Your task to perform on an android device: turn off notifications settings in the gmail app Image 0: 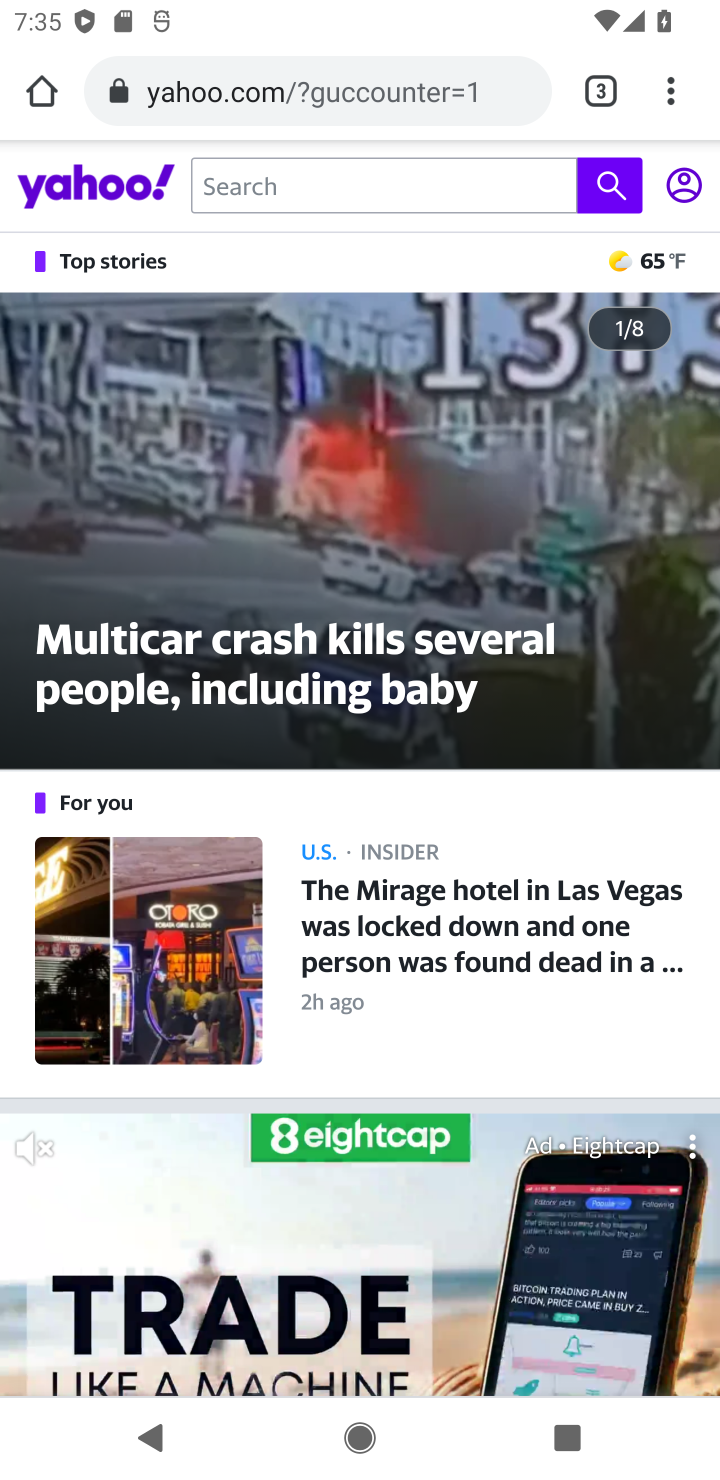
Step 0: press home button
Your task to perform on an android device: turn off notifications settings in the gmail app Image 1: 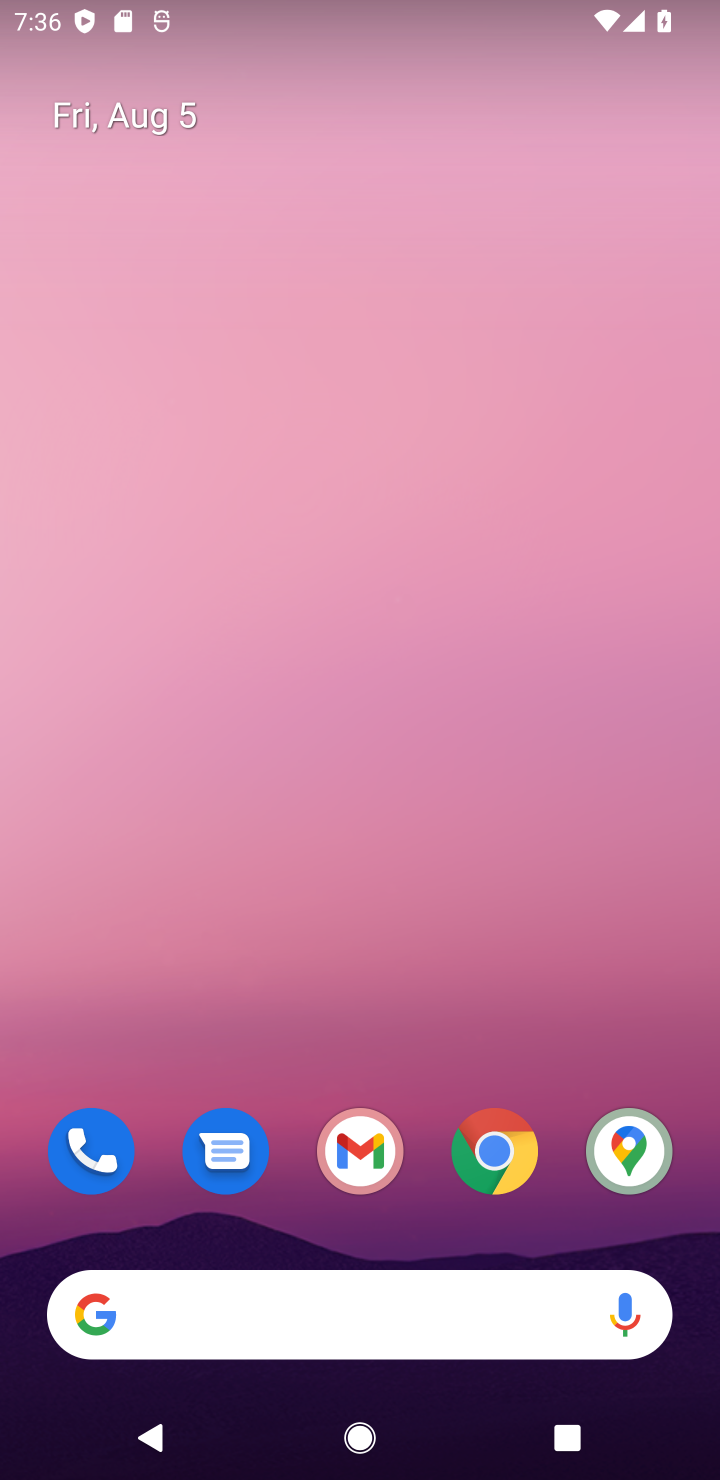
Step 1: click (339, 1163)
Your task to perform on an android device: turn off notifications settings in the gmail app Image 2: 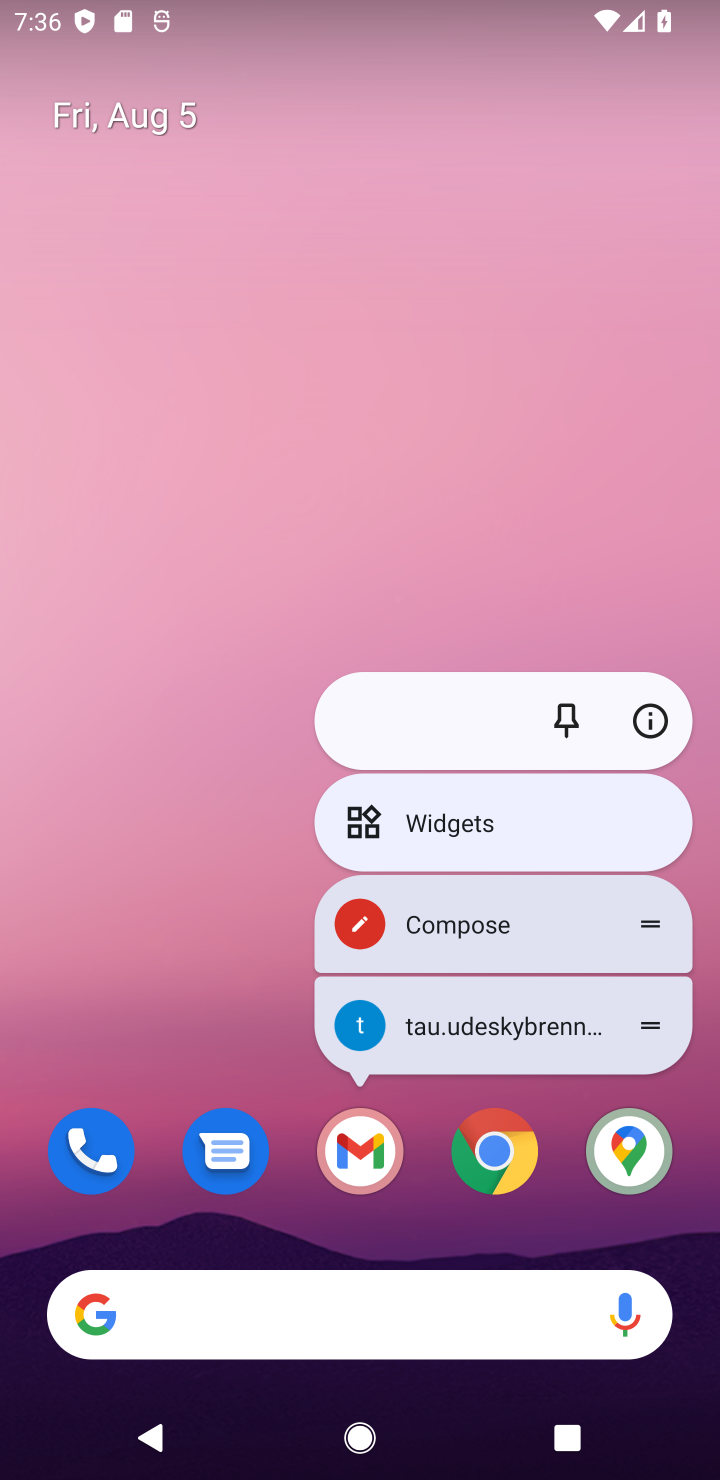
Step 2: click (500, 1162)
Your task to perform on an android device: turn off notifications settings in the gmail app Image 3: 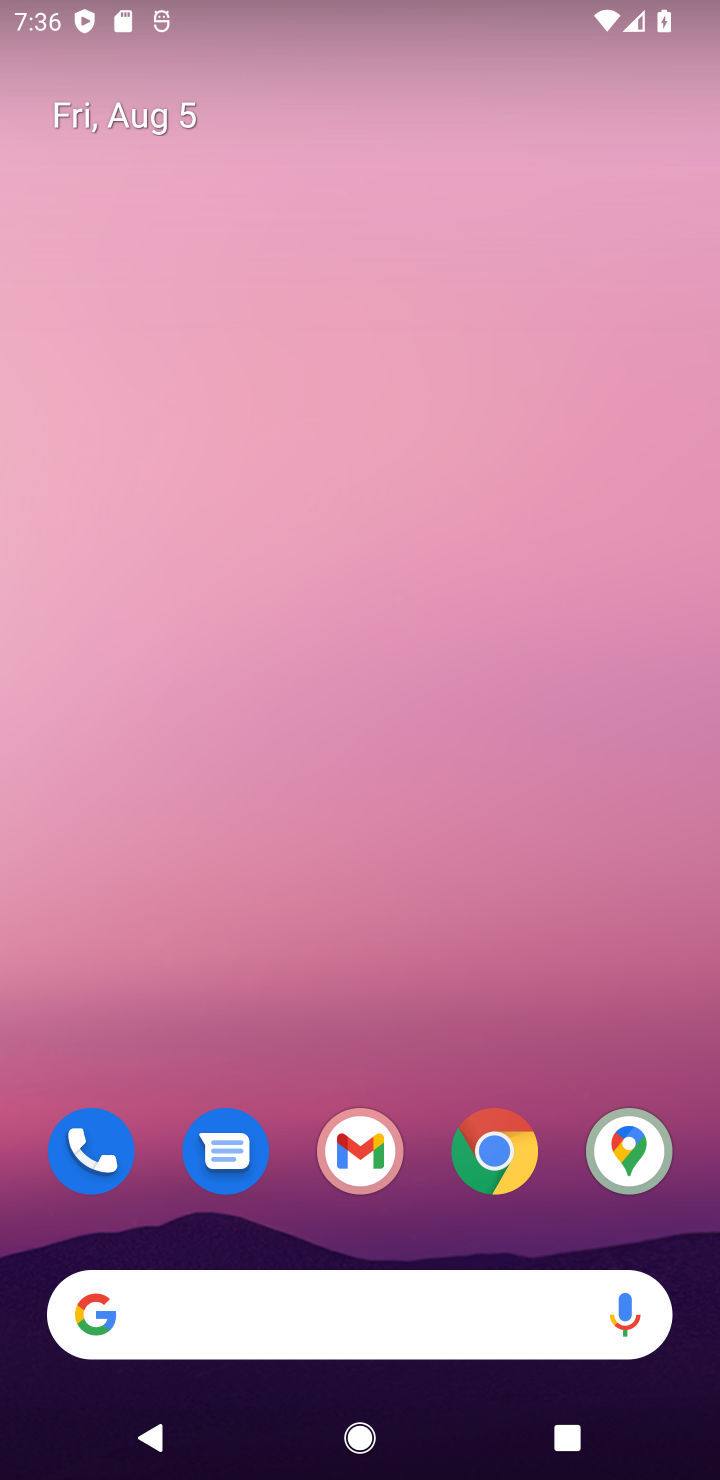
Step 3: click (332, 1168)
Your task to perform on an android device: turn off notifications settings in the gmail app Image 4: 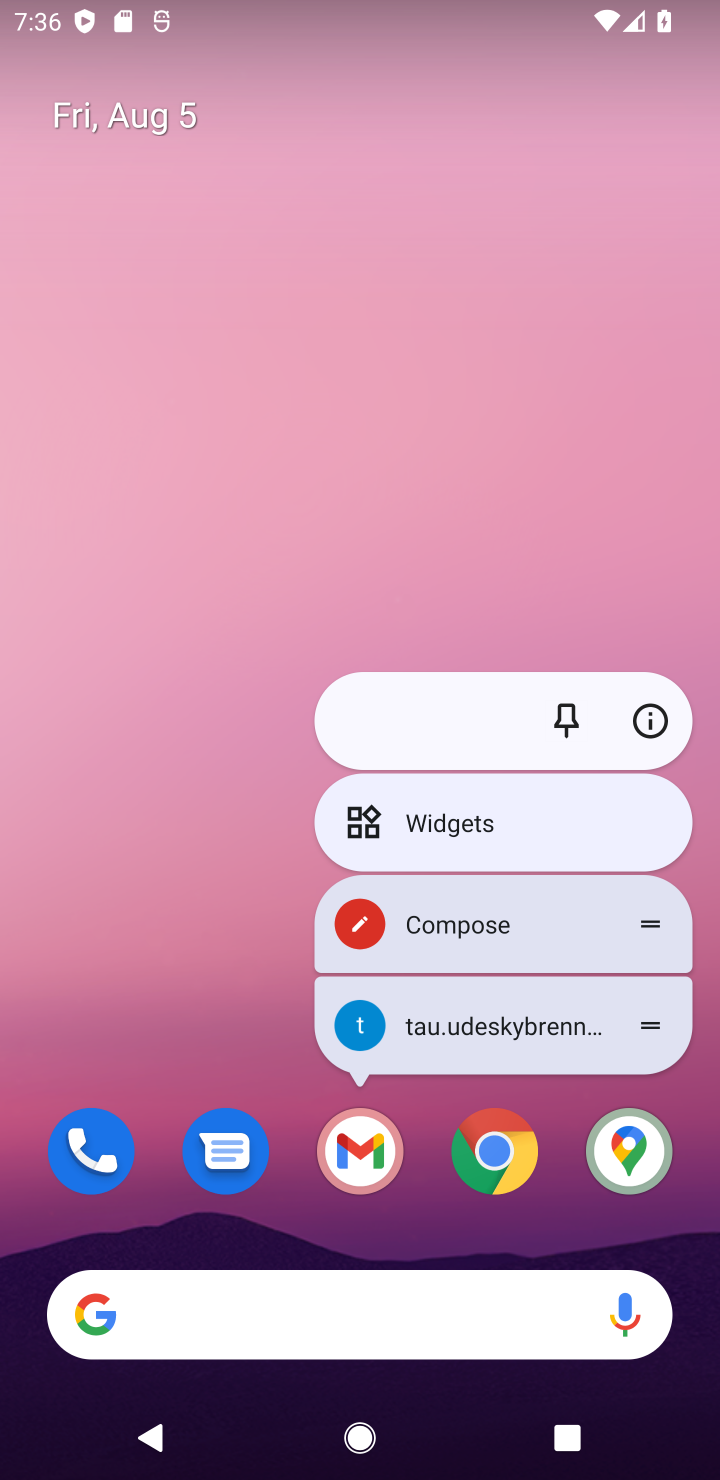
Step 4: click (372, 1145)
Your task to perform on an android device: turn off notifications settings in the gmail app Image 5: 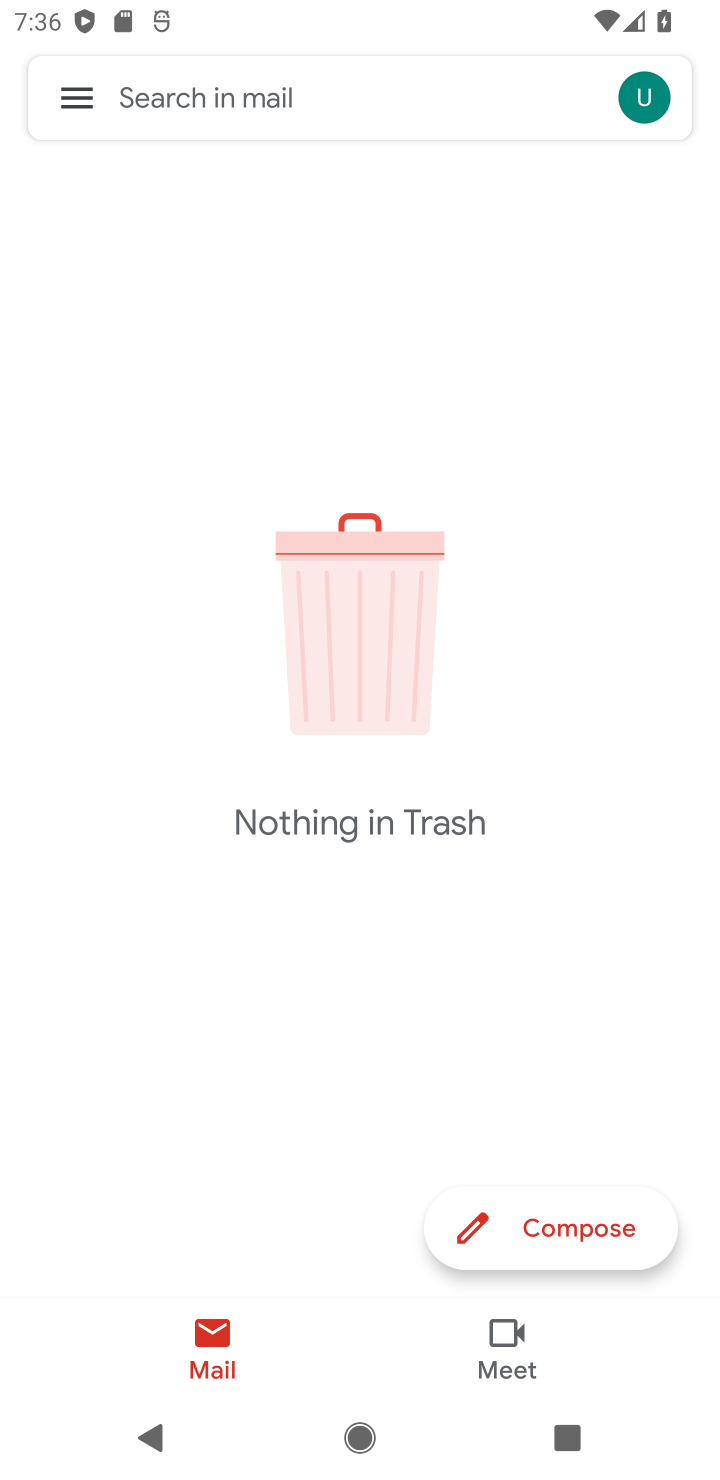
Step 5: click (56, 81)
Your task to perform on an android device: turn off notifications settings in the gmail app Image 6: 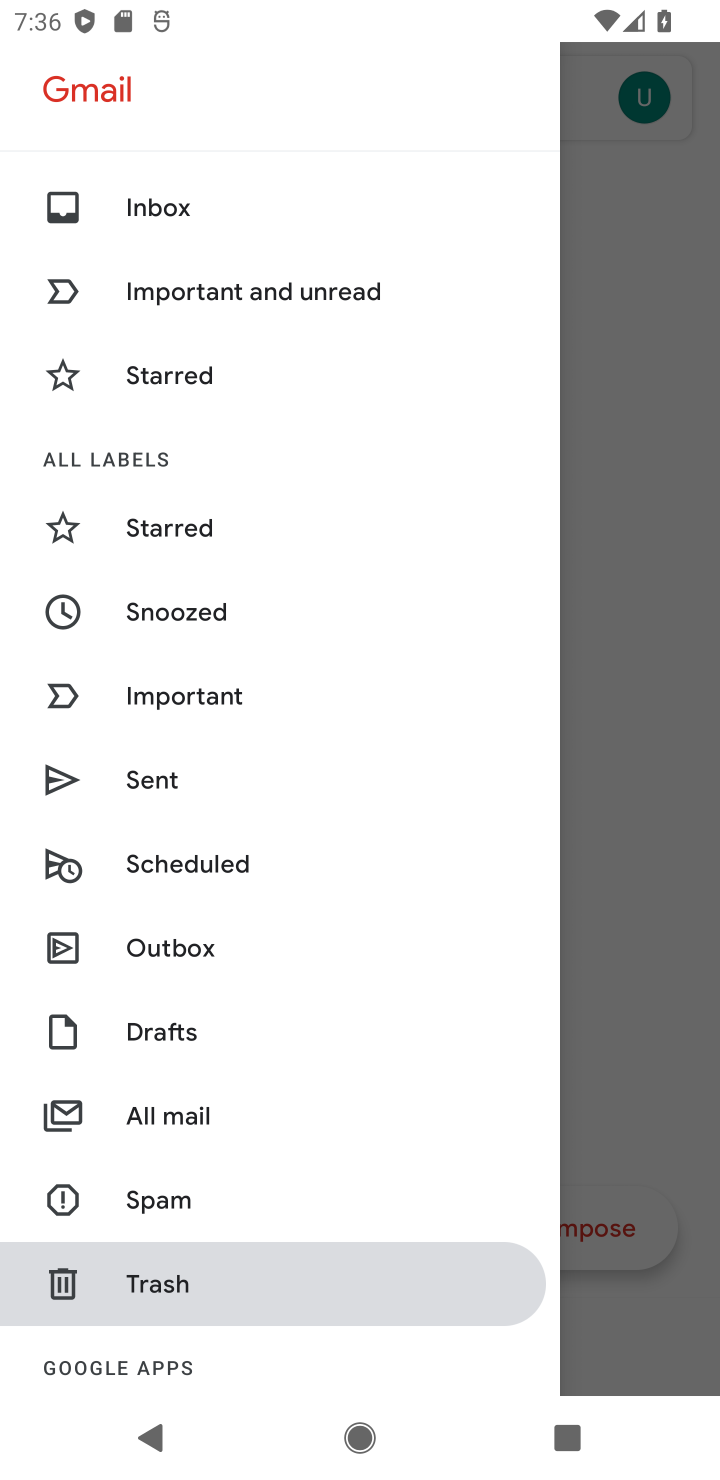
Step 6: drag from (158, 1078) to (270, 230)
Your task to perform on an android device: turn off notifications settings in the gmail app Image 7: 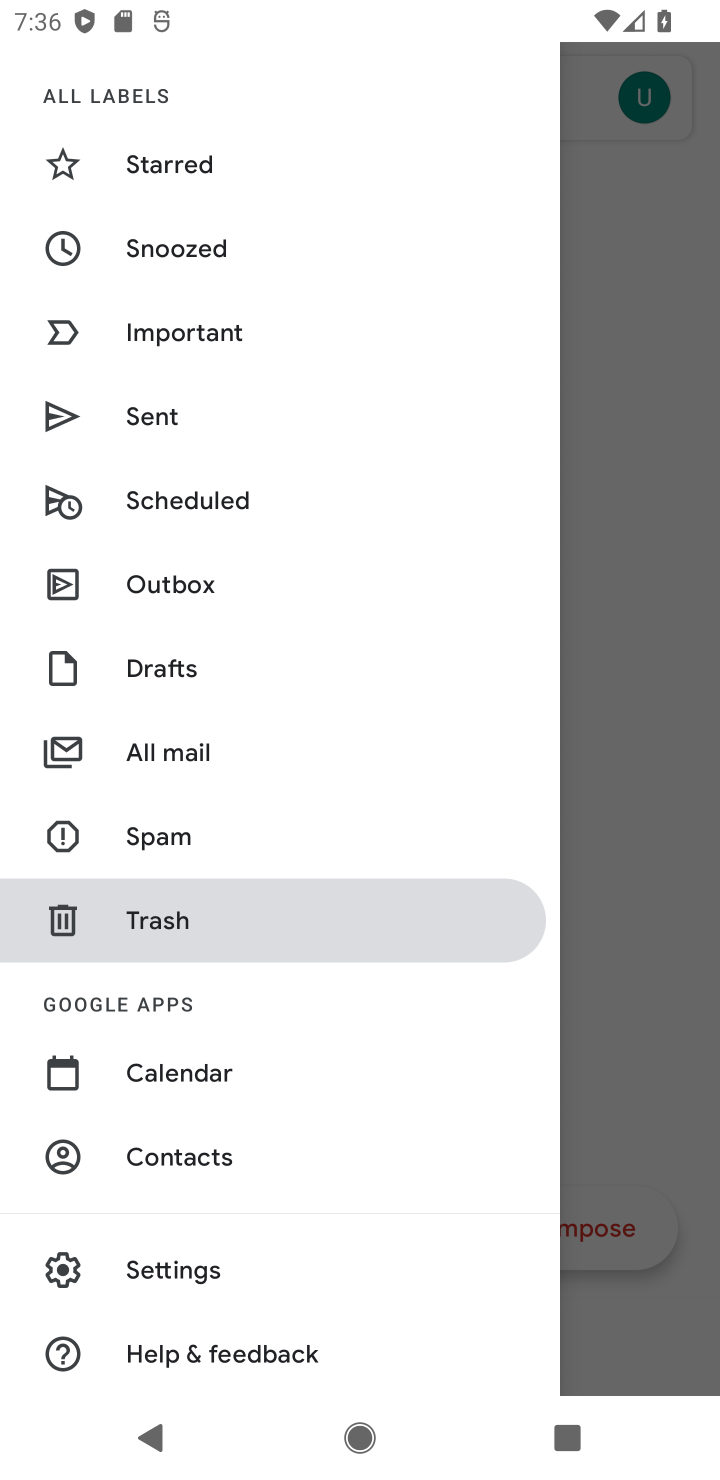
Step 7: click (206, 1293)
Your task to perform on an android device: turn off notifications settings in the gmail app Image 8: 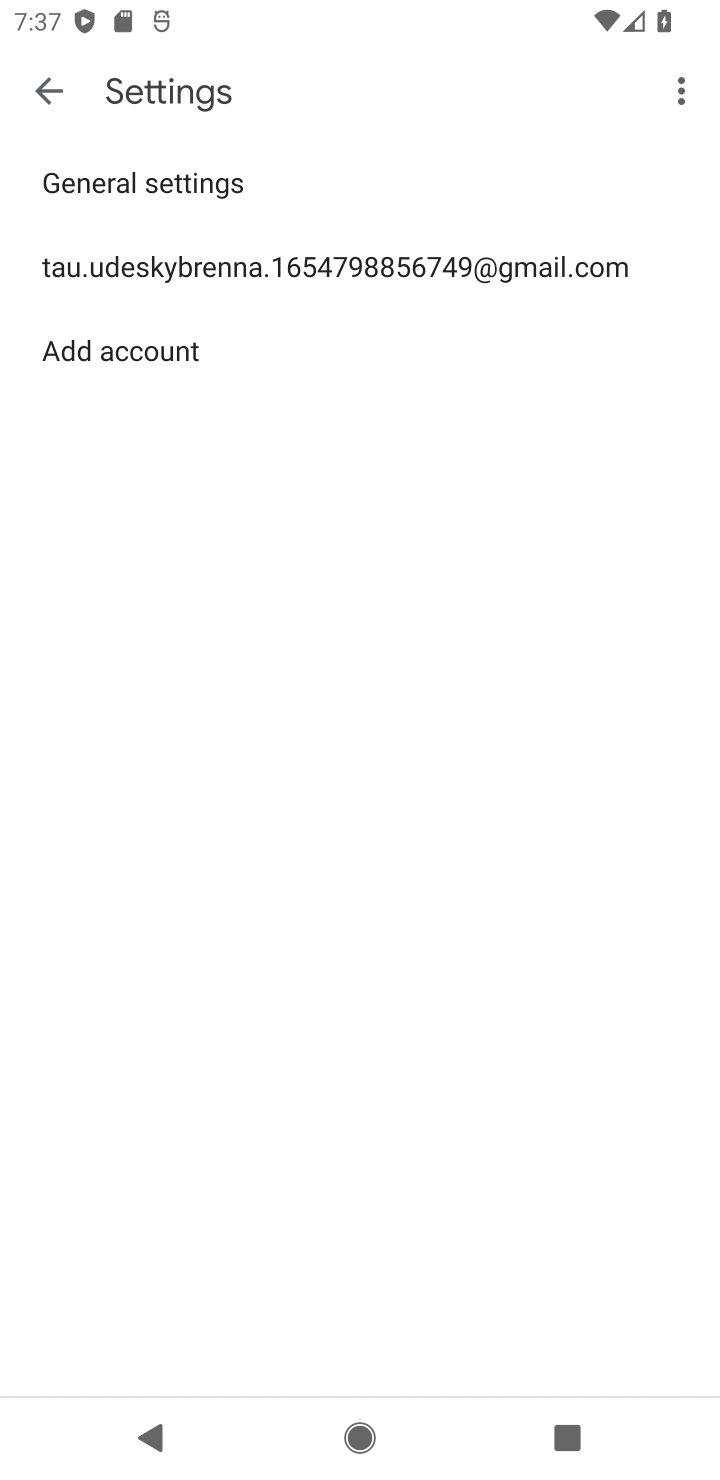
Step 8: click (143, 201)
Your task to perform on an android device: turn off notifications settings in the gmail app Image 9: 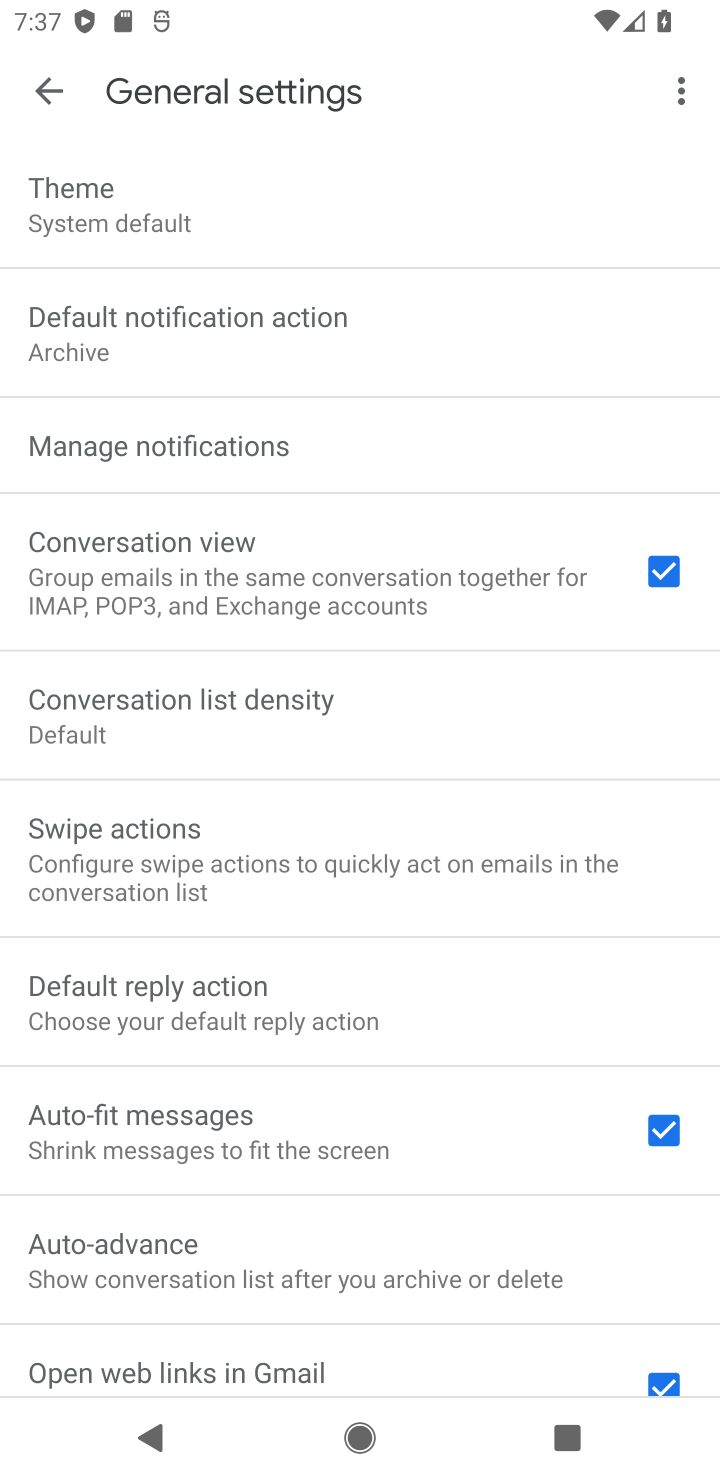
Step 9: click (182, 458)
Your task to perform on an android device: turn off notifications settings in the gmail app Image 10: 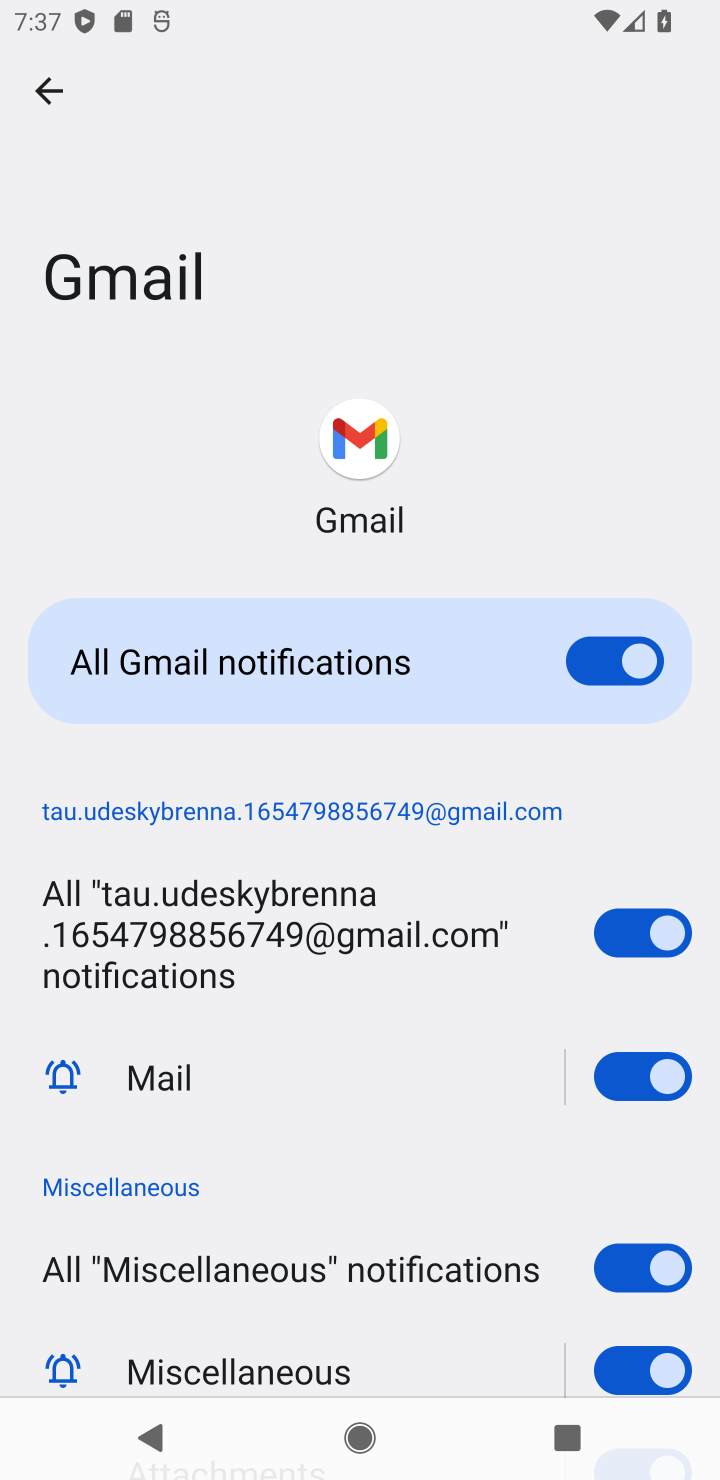
Step 10: click (627, 642)
Your task to perform on an android device: turn off notifications settings in the gmail app Image 11: 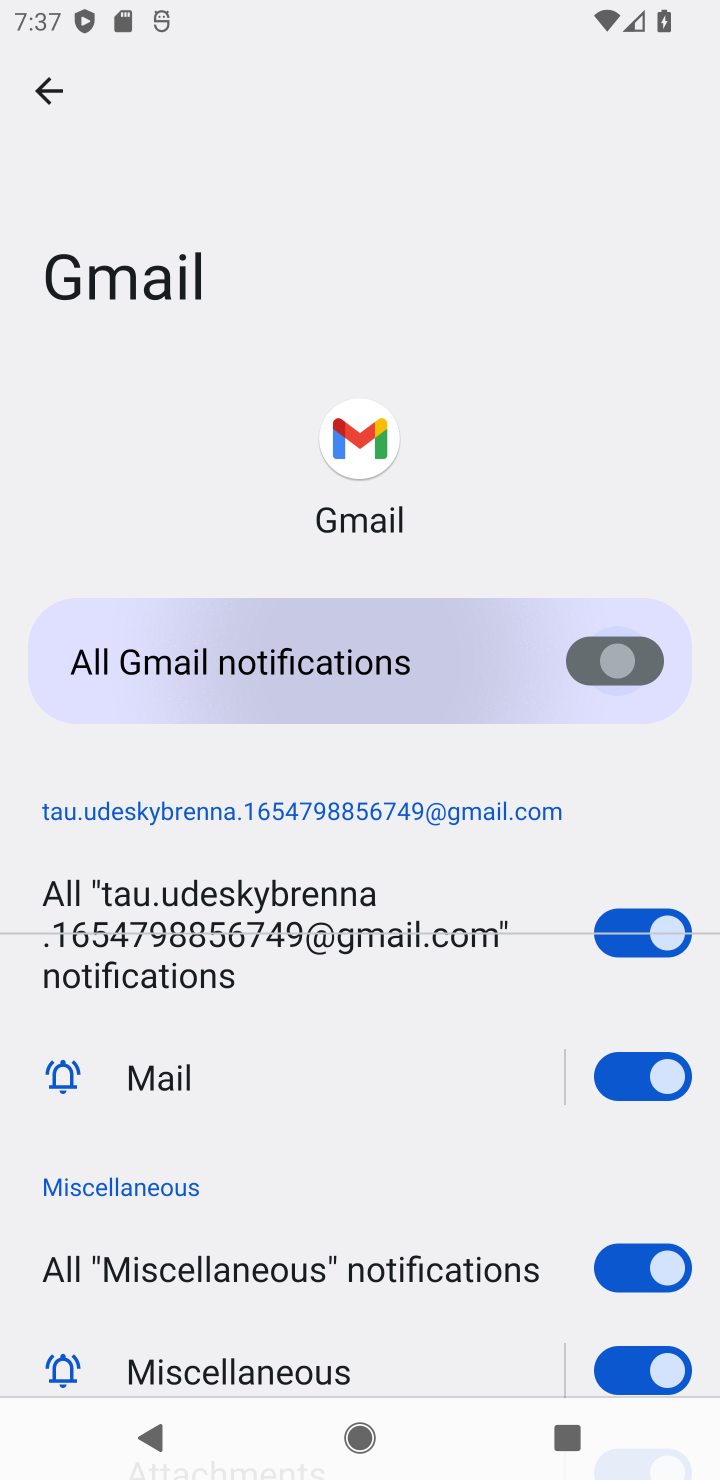
Step 11: task complete